Your task to perform on an android device: Go to sound settings Image 0: 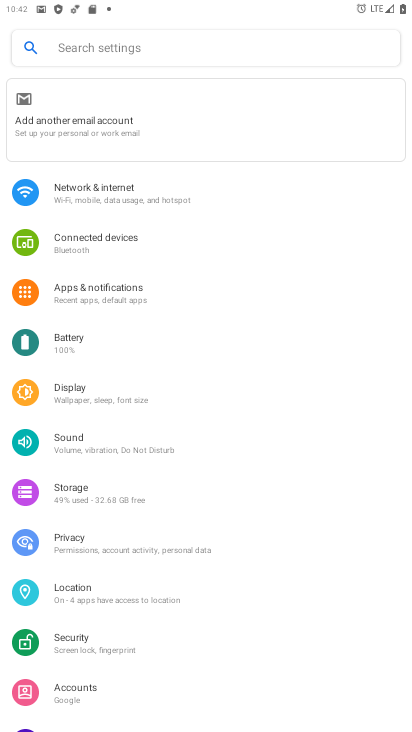
Step 0: click (71, 446)
Your task to perform on an android device: Go to sound settings Image 1: 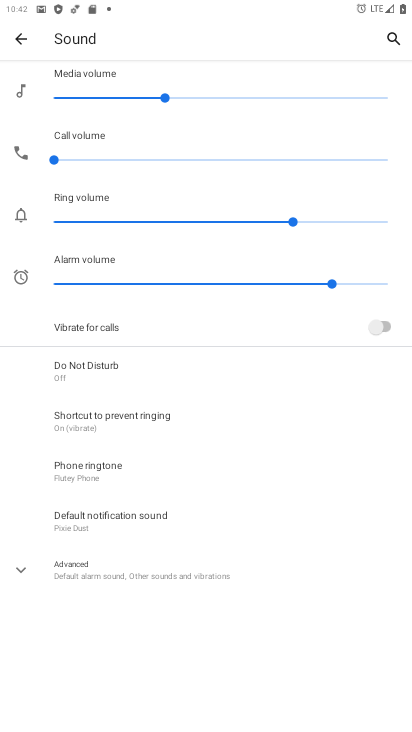
Step 1: task complete